Your task to perform on an android device: Search for Mexican restaurants on Maps Image 0: 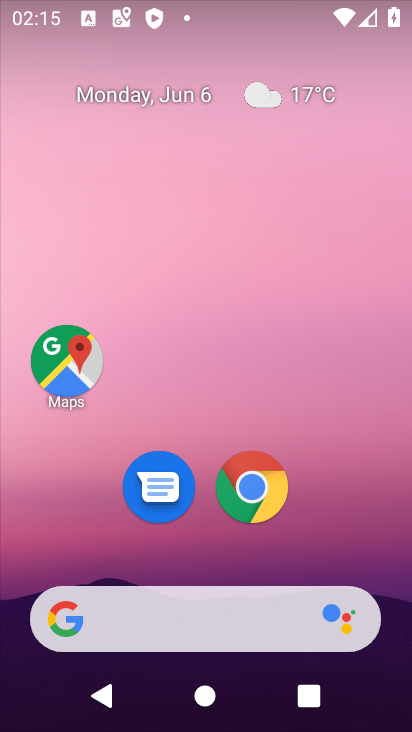
Step 0: click (69, 363)
Your task to perform on an android device: Search for Mexican restaurants on Maps Image 1: 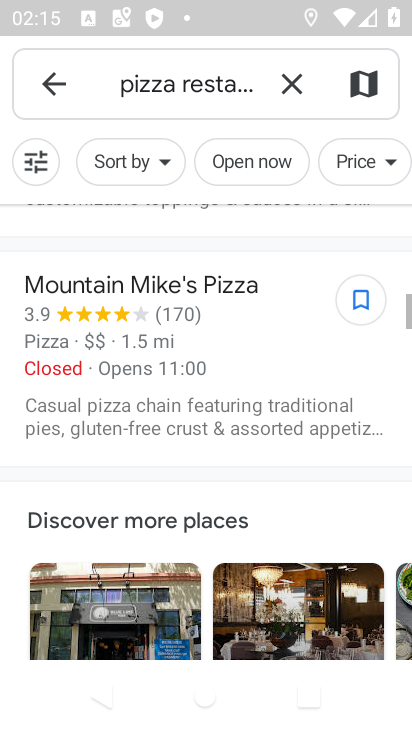
Step 1: click (286, 78)
Your task to perform on an android device: Search for Mexican restaurants on Maps Image 2: 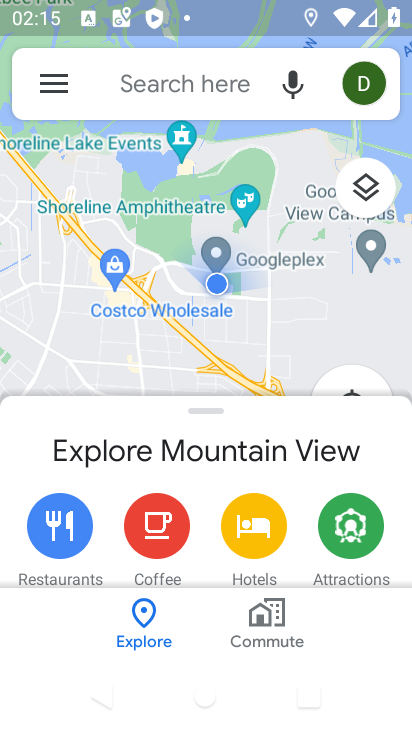
Step 2: click (167, 77)
Your task to perform on an android device: Search for Mexican restaurants on Maps Image 3: 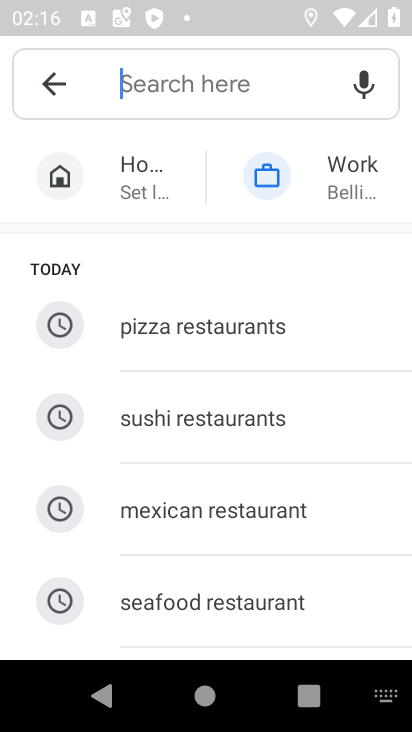
Step 3: type "mexican restaurants"
Your task to perform on an android device: Search for Mexican restaurants on Maps Image 4: 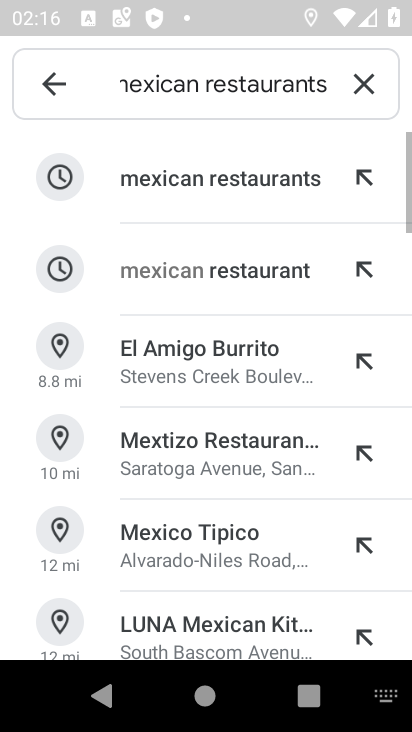
Step 4: click (196, 170)
Your task to perform on an android device: Search for Mexican restaurants on Maps Image 5: 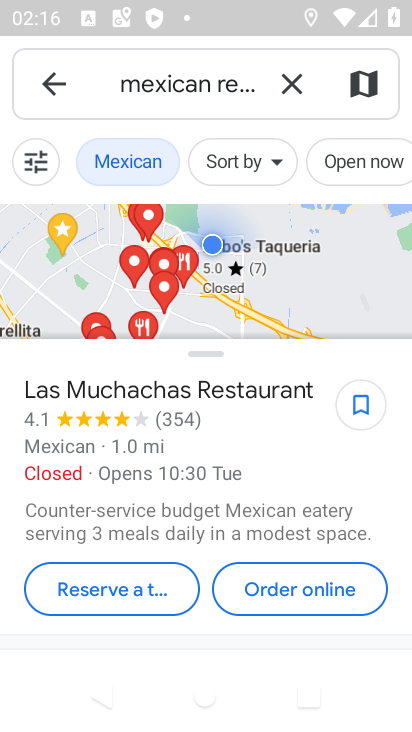
Step 5: task complete